Your task to perform on an android device: open a new tab in the chrome app Image 0: 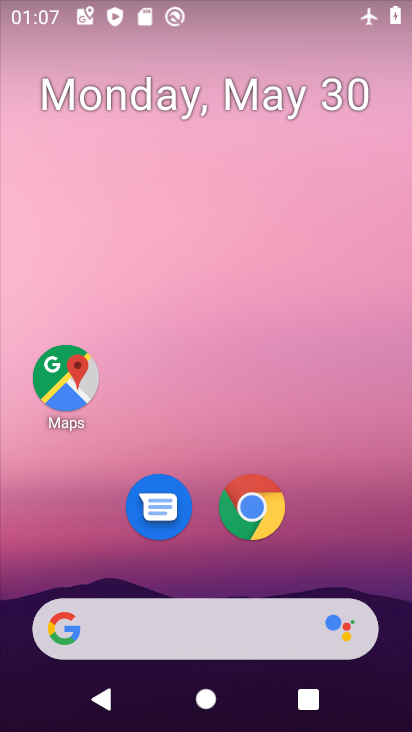
Step 0: click (250, 512)
Your task to perform on an android device: open a new tab in the chrome app Image 1: 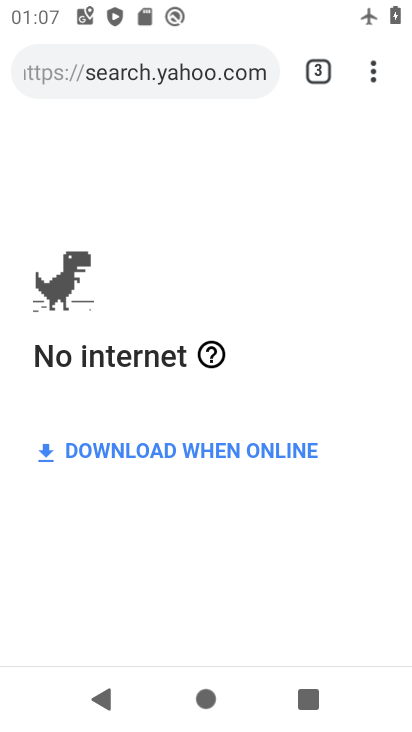
Step 1: click (378, 62)
Your task to perform on an android device: open a new tab in the chrome app Image 2: 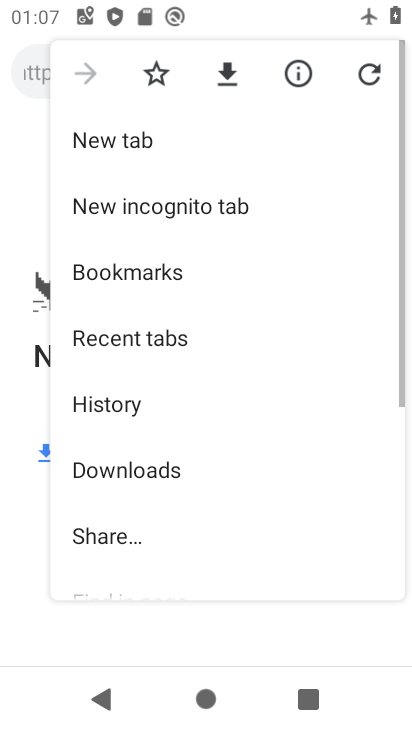
Step 2: click (163, 140)
Your task to perform on an android device: open a new tab in the chrome app Image 3: 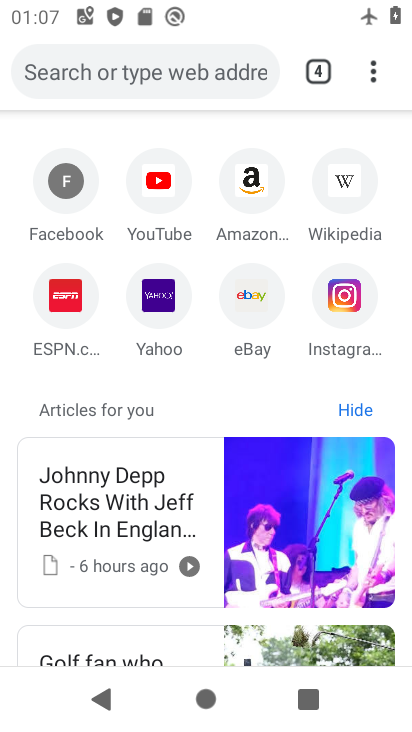
Step 3: task complete